Your task to perform on an android device: empty trash in the gmail app Image 0: 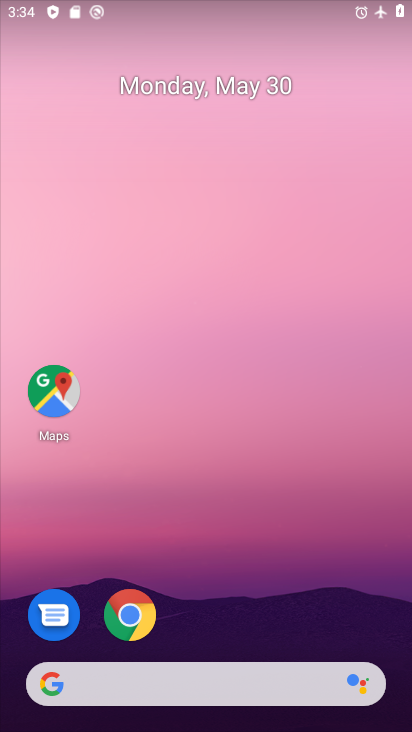
Step 0: drag from (249, 604) to (226, 33)
Your task to perform on an android device: empty trash in the gmail app Image 1: 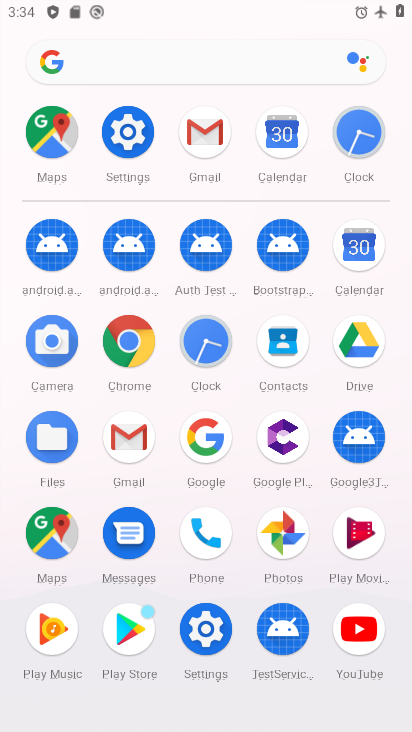
Step 1: click (131, 121)
Your task to perform on an android device: empty trash in the gmail app Image 2: 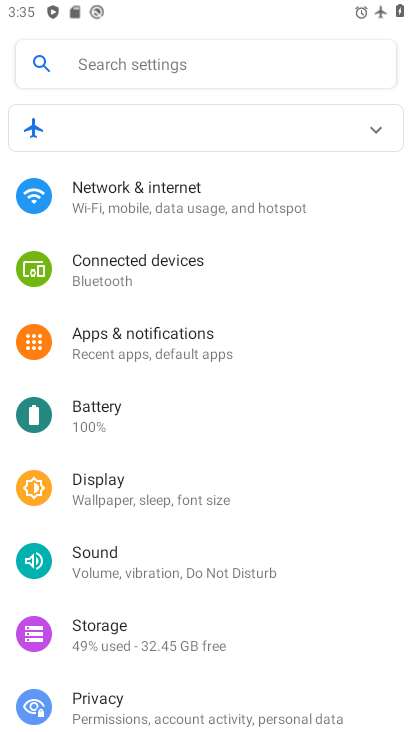
Step 2: press home button
Your task to perform on an android device: empty trash in the gmail app Image 3: 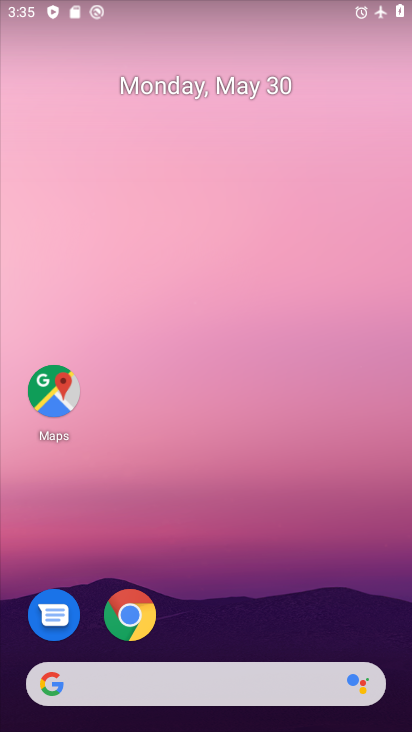
Step 3: drag from (248, 583) to (281, 55)
Your task to perform on an android device: empty trash in the gmail app Image 4: 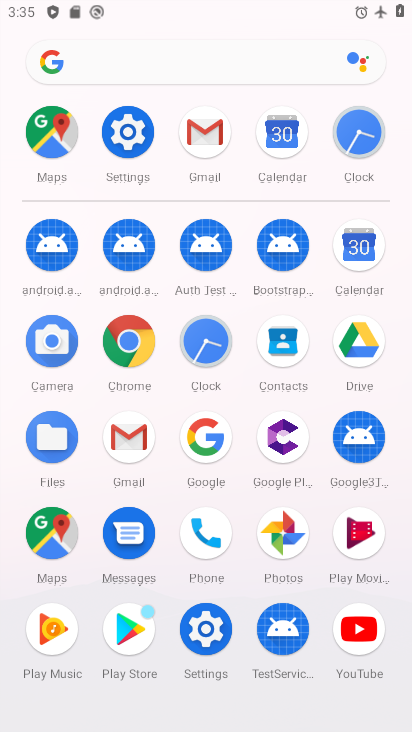
Step 4: click (208, 120)
Your task to perform on an android device: empty trash in the gmail app Image 5: 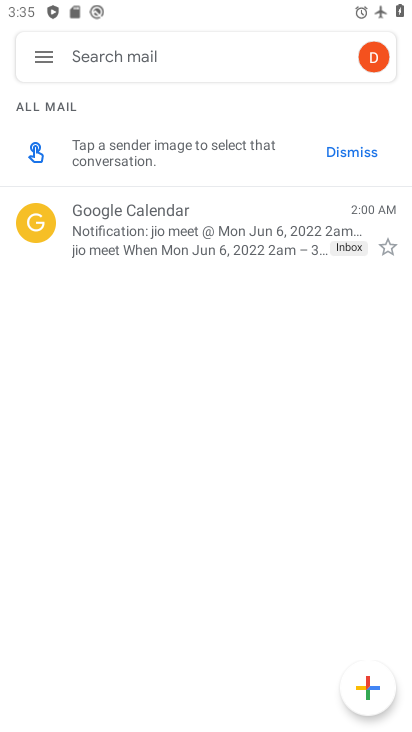
Step 5: click (40, 57)
Your task to perform on an android device: empty trash in the gmail app Image 6: 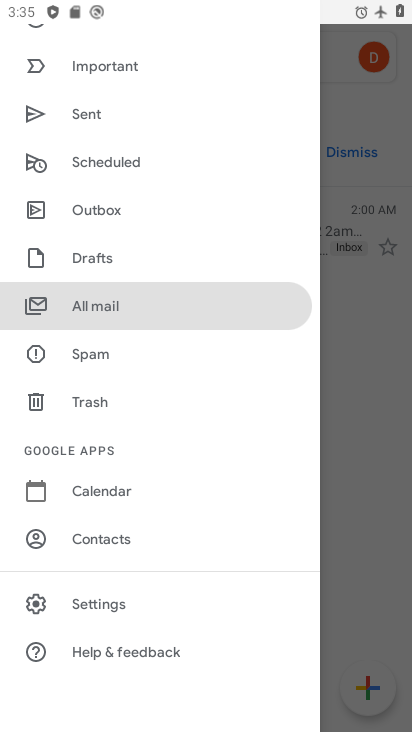
Step 6: click (83, 395)
Your task to perform on an android device: empty trash in the gmail app Image 7: 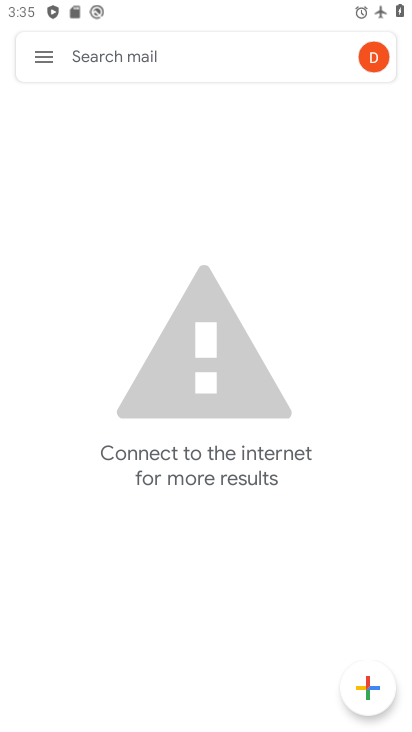
Step 7: task complete